Your task to perform on an android device: What's the weather going to be tomorrow? Image 0: 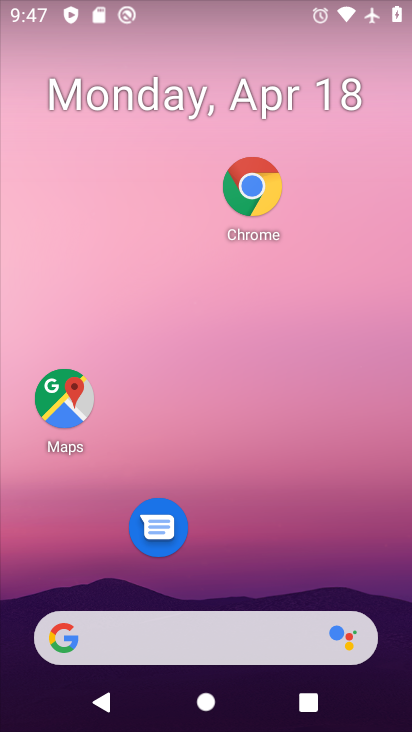
Step 0: drag from (164, 463) to (411, 448)
Your task to perform on an android device: What's the weather going to be tomorrow? Image 1: 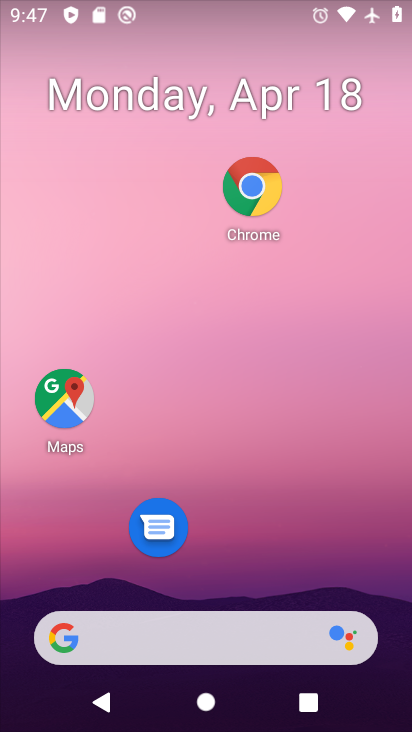
Step 1: drag from (263, 478) to (218, 184)
Your task to perform on an android device: What's the weather going to be tomorrow? Image 2: 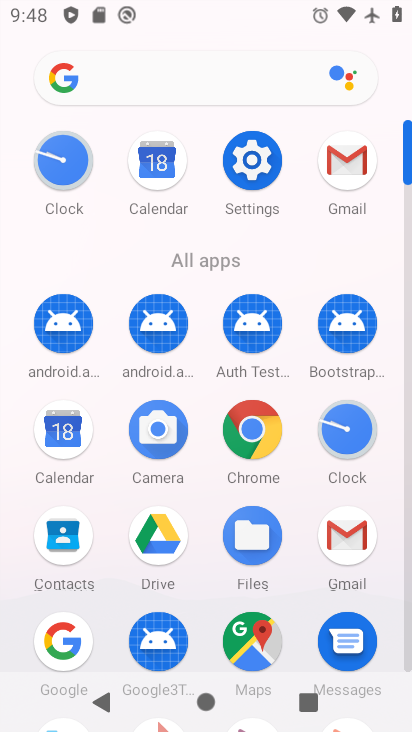
Step 2: click (261, 440)
Your task to perform on an android device: What's the weather going to be tomorrow? Image 3: 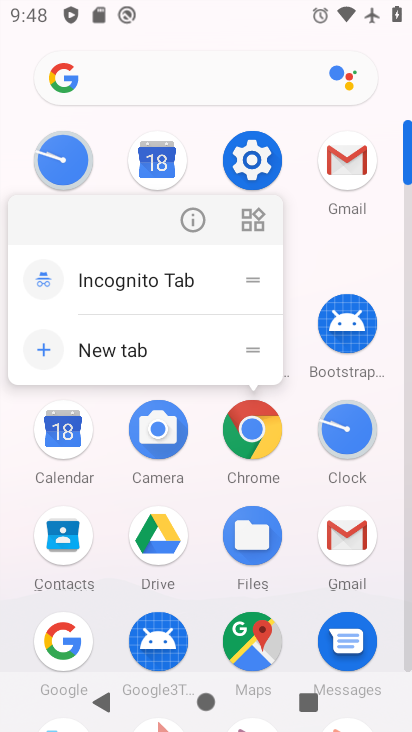
Step 3: drag from (251, 438) to (217, 461)
Your task to perform on an android device: What's the weather going to be tomorrow? Image 4: 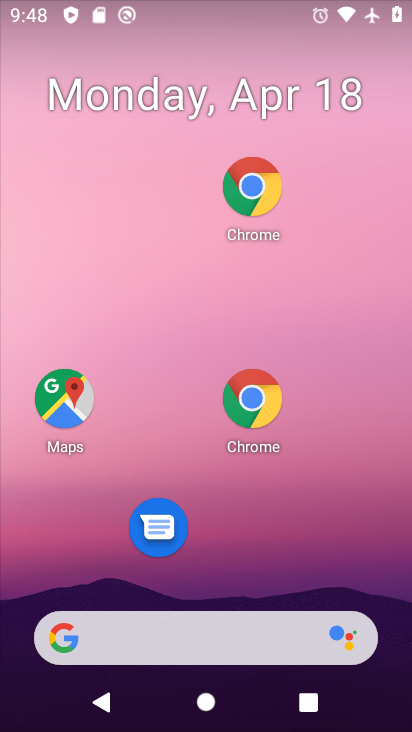
Step 4: click (256, 401)
Your task to perform on an android device: What's the weather going to be tomorrow? Image 5: 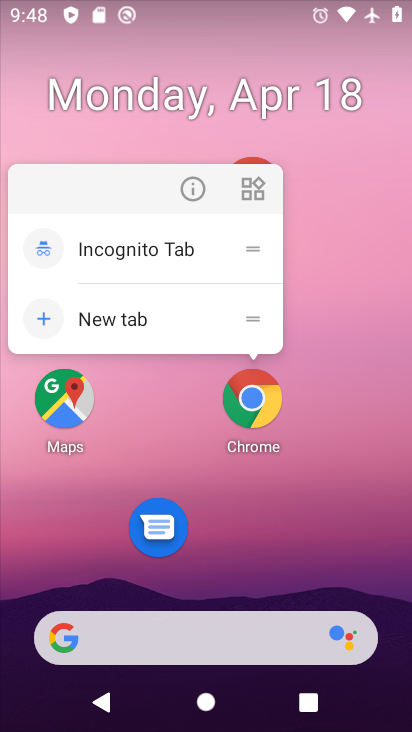
Step 5: click (242, 421)
Your task to perform on an android device: What's the weather going to be tomorrow? Image 6: 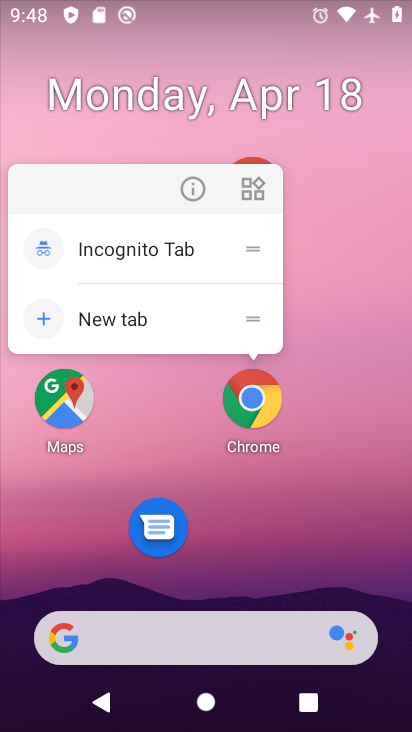
Step 6: click (118, 322)
Your task to perform on an android device: What's the weather going to be tomorrow? Image 7: 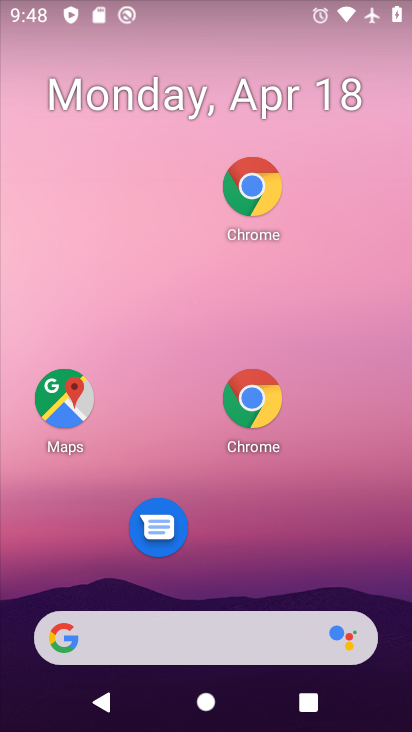
Step 7: click (261, 400)
Your task to perform on an android device: What's the weather going to be tomorrow? Image 8: 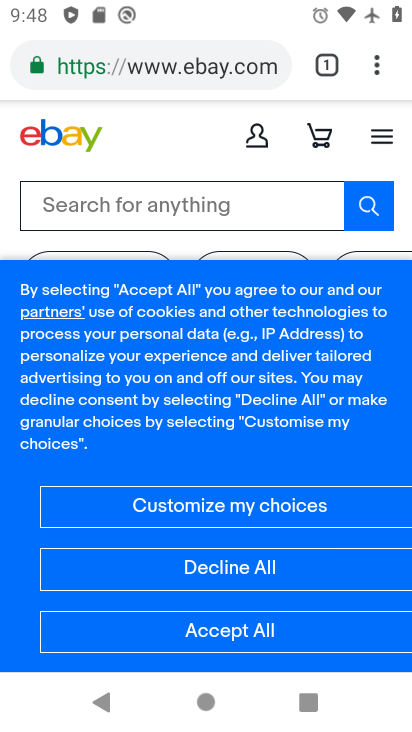
Step 8: click (326, 62)
Your task to perform on an android device: What's the weather going to be tomorrow? Image 9: 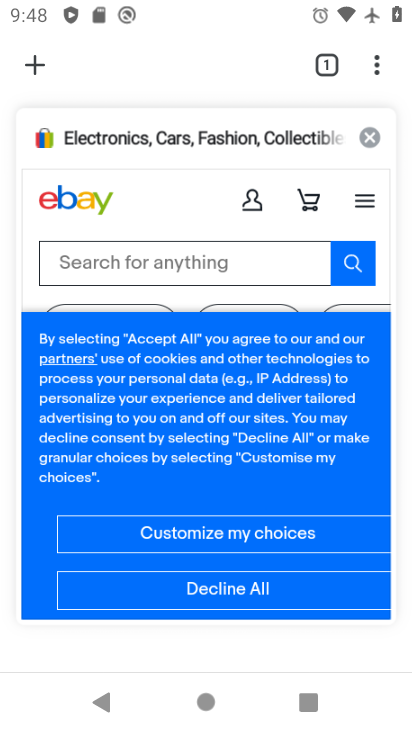
Step 9: click (31, 71)
Your task to perform on an android device: What's the weather going to be tomorrow? Image 10: 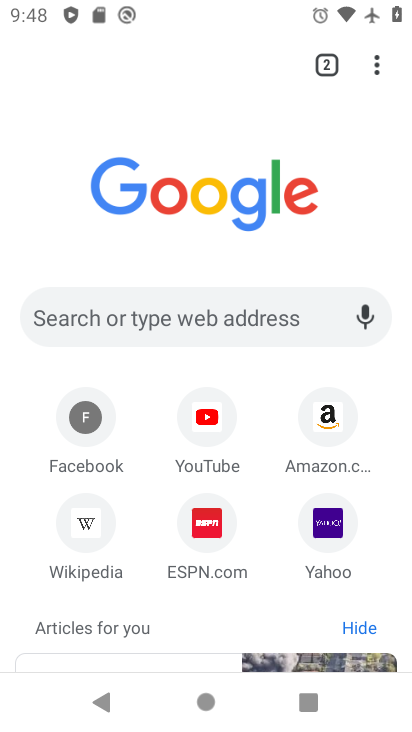
Step 10: click (222, 312)
Your task to perform on an android device: What's the weather going to be tomorrow? Image 11: 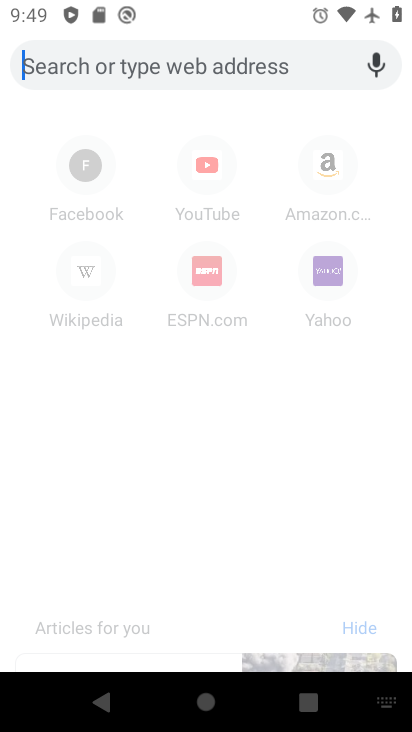
Step 11: type "whether tommorow"
Your task to perform on an android device: What's the weather going to be tomorrow? Image 12: 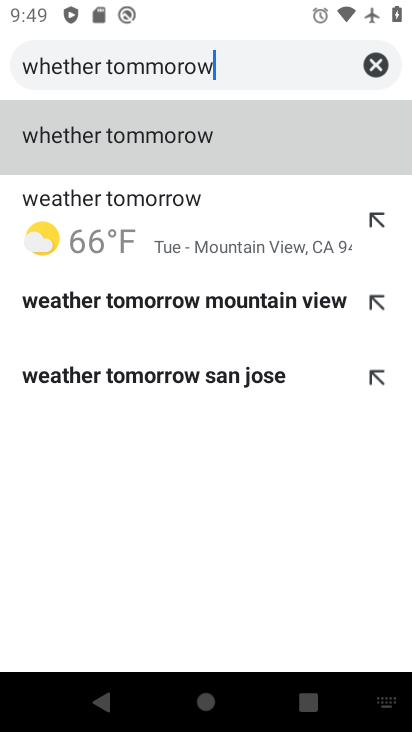
Step 12: click (135, 231)
Your task to perform on an android device: What's the weather going to be tomorrow? Image 13: 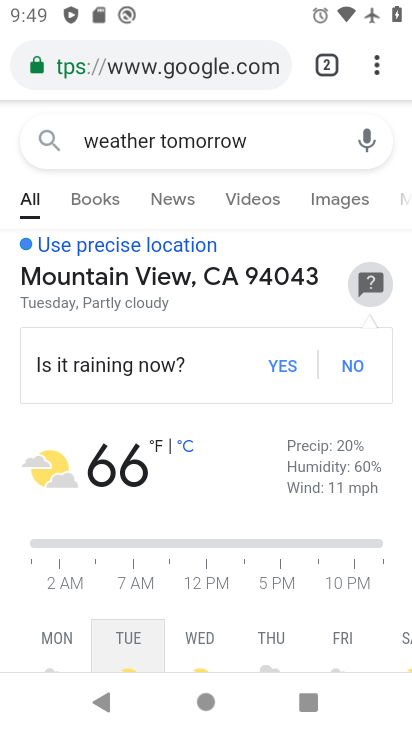
Step 13: task complete